Your task to perform on an android device: toggle show notifications on the lock screen Image 0: 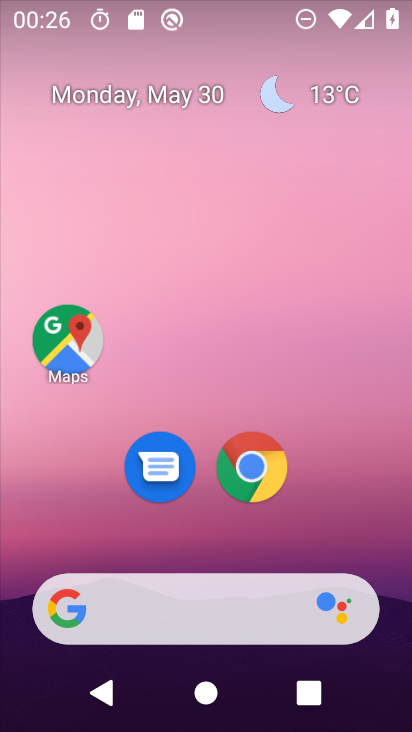
Step 0: drag from (207, 545) to (205, 193)
Your task to perform on an android device: toggle show notifications on the lock screen Image 1: 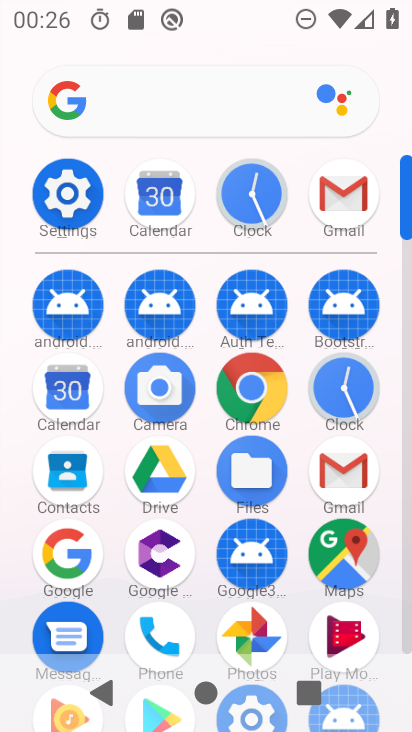
Step 1: click (82, 204)
Your task to perform on an android device: toggle show notifications on the lock screen Image 2: 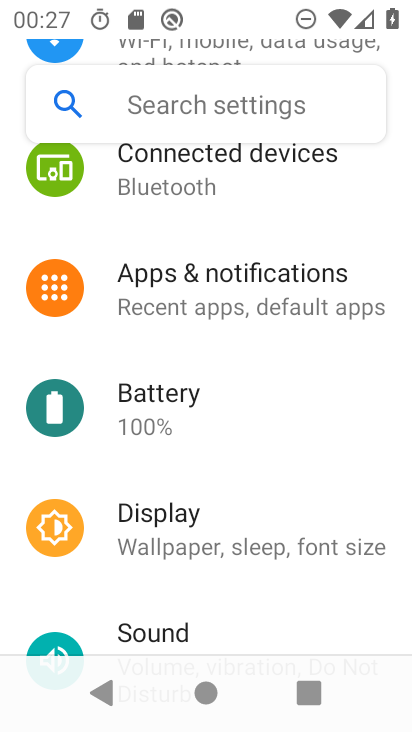
Step 2: click (204, 318)
Your task to perform on an android device: toggle show notifications on the lock screen Image 3: 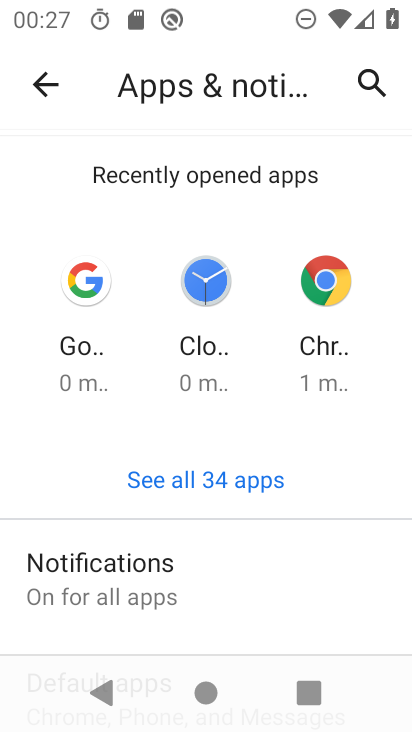
Step 3: click (239, 567)
Your task to perform on an android device: toggle show notifications on the lock screen Image 4: 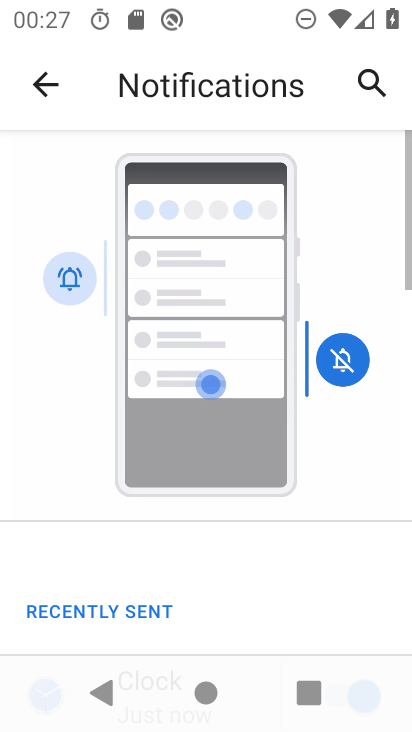
Step 4: drag from (239, 567) to (245, 162)
Your task to perform on an android device: toggle show notifications on the lock screen Image 5: 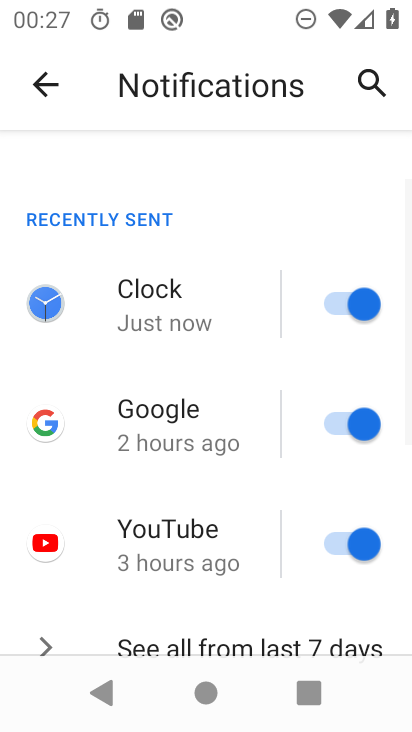
Step 5: drag from (260, 546) to (258, 240)
Your task to perform on an android device: toggle show notifications on the lock screen Image 6: 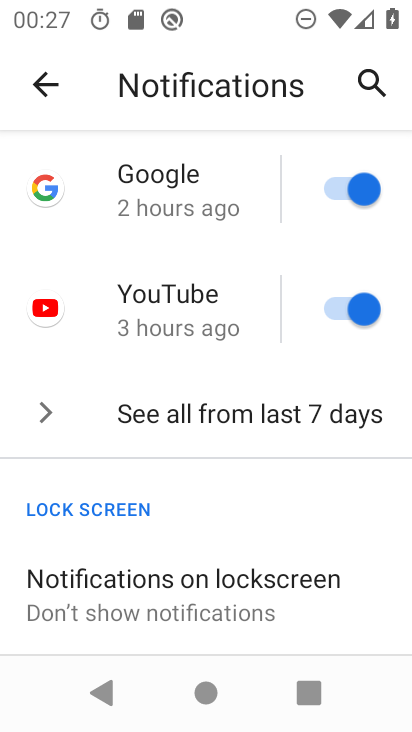
Step 6: click (235, 560)
Your task to perform on an android device: toggle show notifications on the lock screen Image 7: 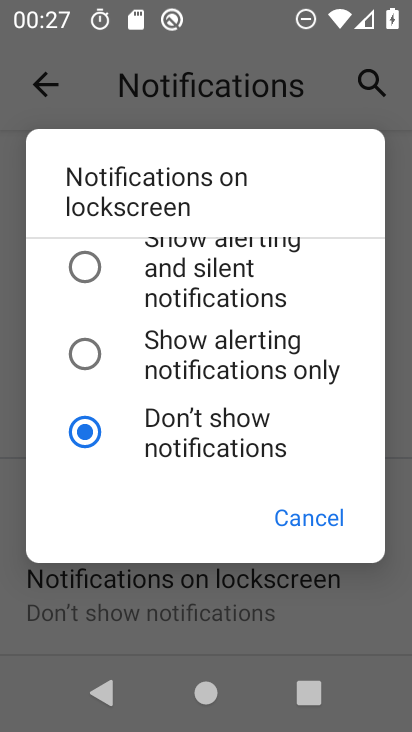
Step 7: click (112, 270)
Your task to perform on an android device: toggle show notifications on the lock screen Image 8: 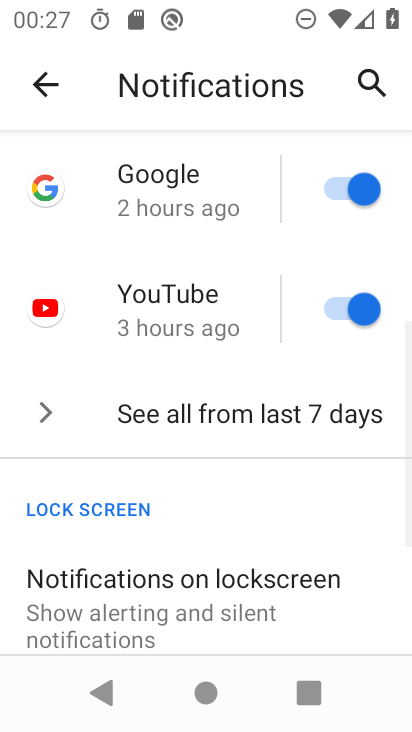
Step 8: task complete